Your task to perform on an android device: change text size in settings app Image 0: 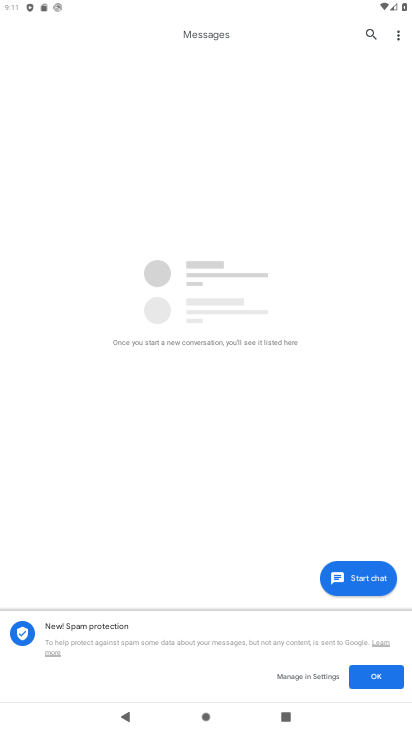
Step 0: press home button
Your task to perform on an android device: change text size in settings app Image 1: 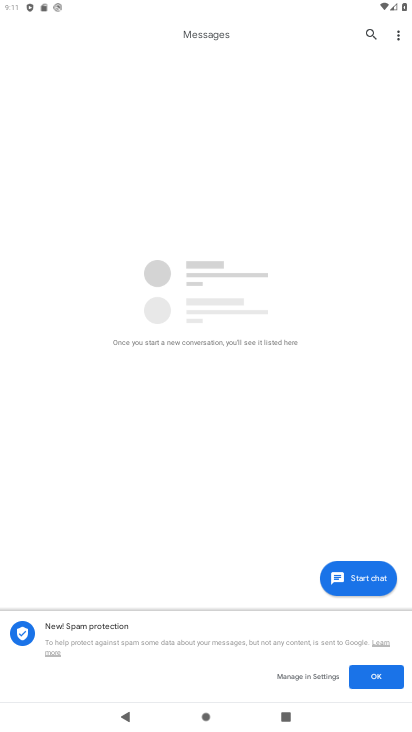
Step 1: click (324, 9)
Your task to perform on an android device: change text size in settings app Image 2: 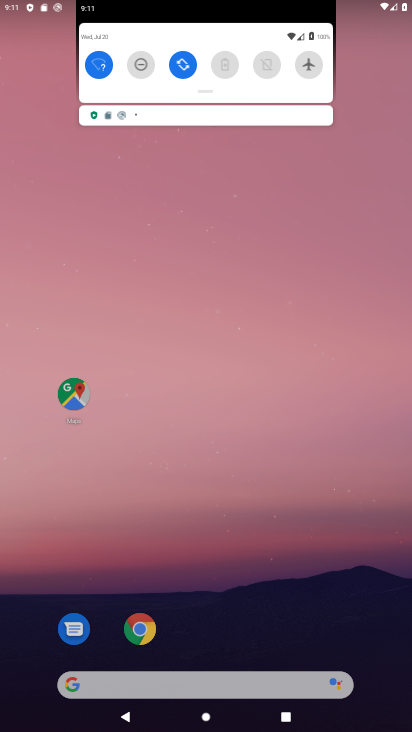
Step 2: drag from (192, 622) to (164, 24)
Your task to perform on an android device: change text size in settings app Image 3: 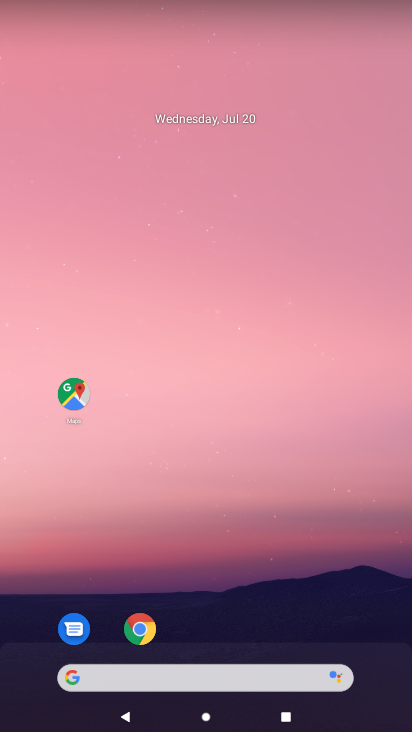
Step 3: drag from (275, 648) to (134, 0)
Your task to perform on an android device: change text size in settings app Image 4: 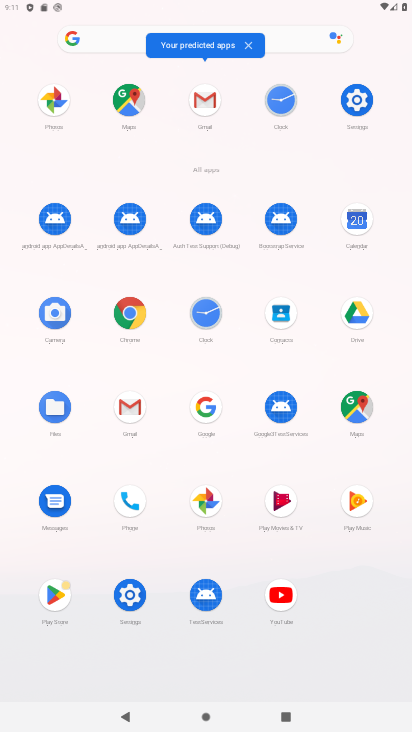
Step 4: click (117, 602)
Your task to perform on an android device: change text size in settings app Image 5: 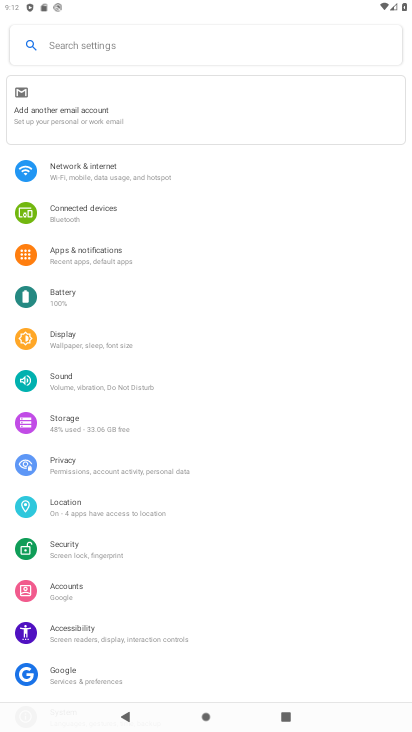
Step 5: click (53, 328)
Your task to perform on an android device: change text size in settings app Image 6: 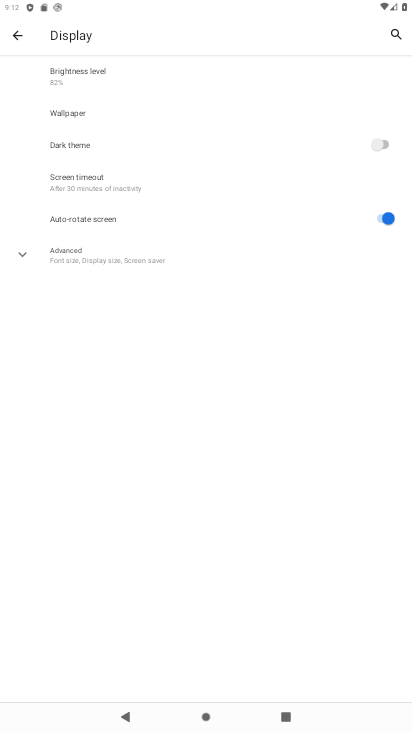
Step 6: click (42, 257)
Your task to perform on an android device: change text size in settings app Image 7: 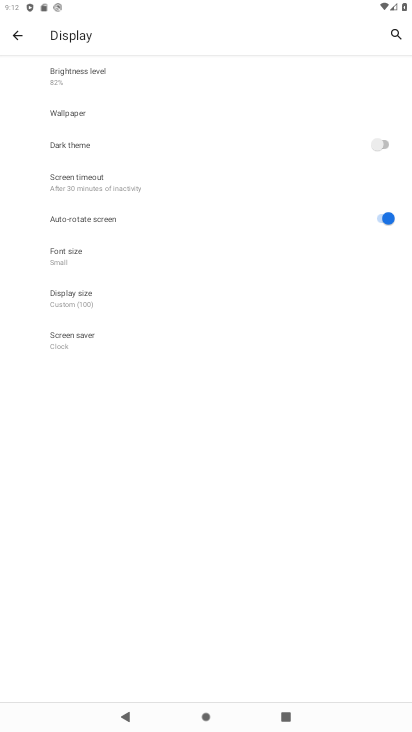
Step 7: click (42, 257)
Your task to perform on an android device: change text size in settings app Image 8: 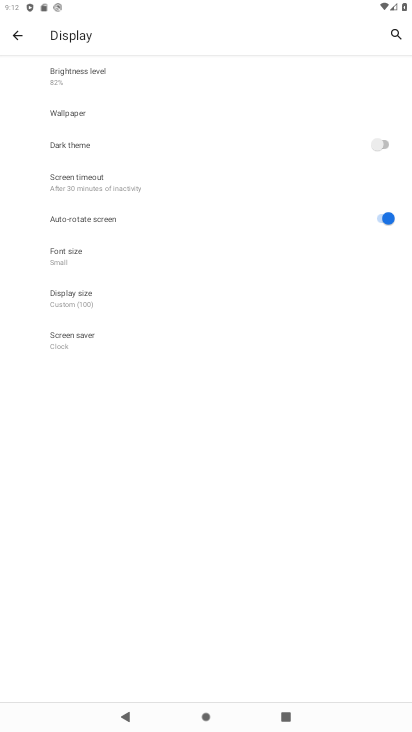
Step 8: click (42, 257)
Your task to perform on an android device: change text size in settings app Image 9: 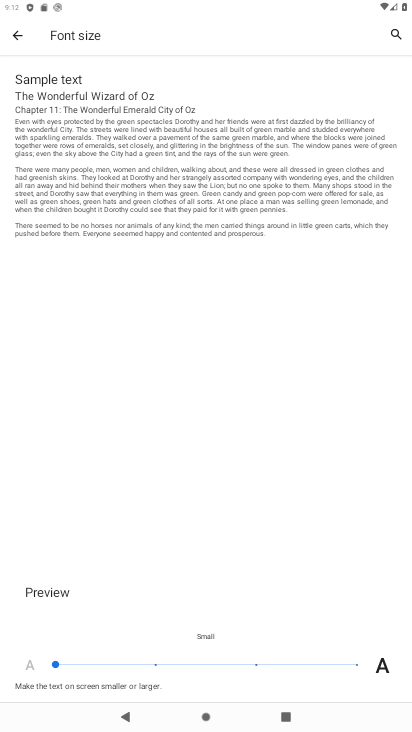
Step 9: click (380, 667)
Your task to perform on an android device: change text size in settings app Image 10: 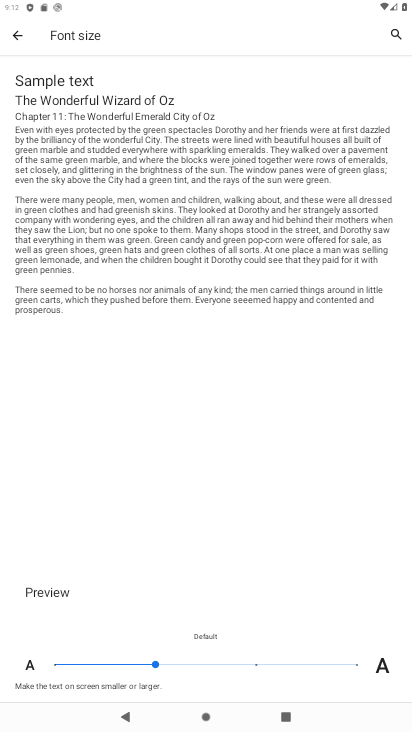
Step 10: click (380, 667)
Your task to perform on an android device: change text size in settings app Image 11: 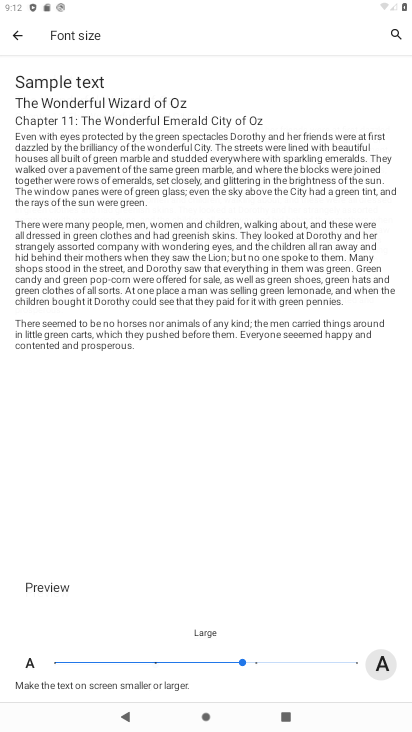
Step 11: task complete